Your task to perform on an android device: Open location settings Image 0: 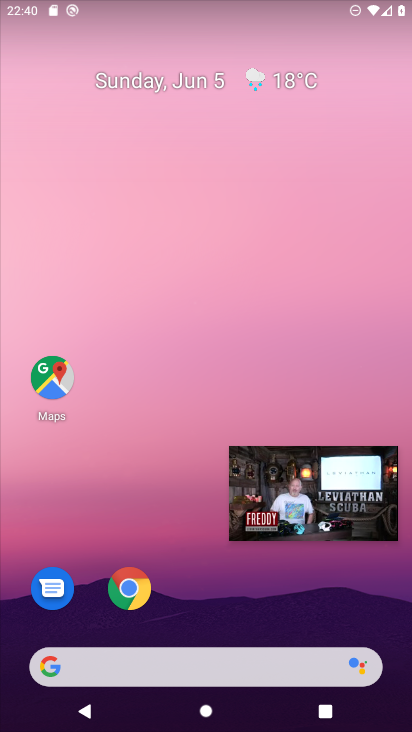
Step 0: drag from (217, 593) to (250, 199)
Your task to perform on an android device: Open location settings Image 1: 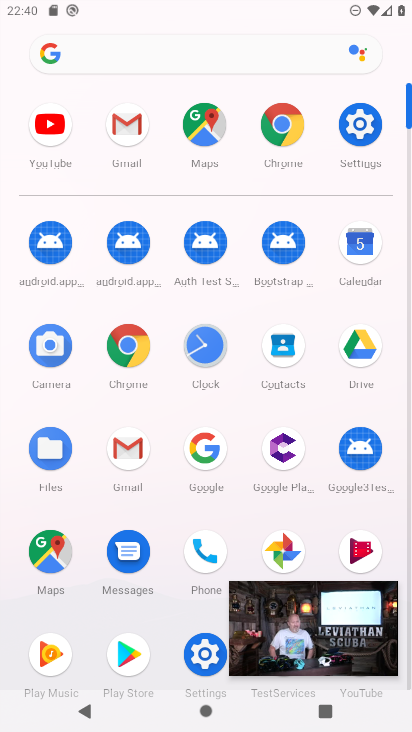
Step 1: click (363, 136)
Your task to perform on an android device: Open location settings Image 2: 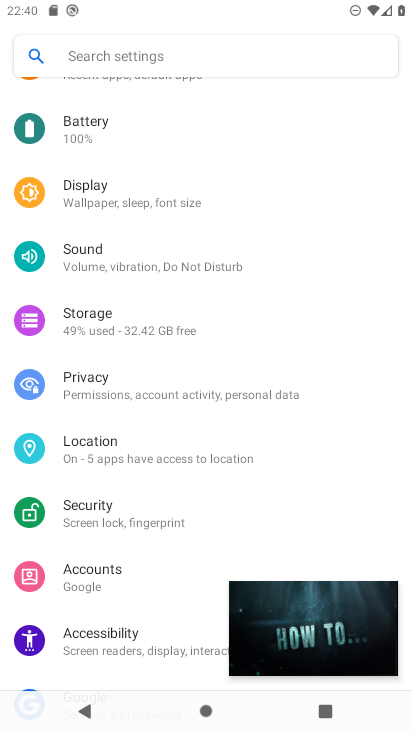
Step 2: drag from (338, 386) to (319, 228)
Your task to perform on an android device: Open location settings Image 3: 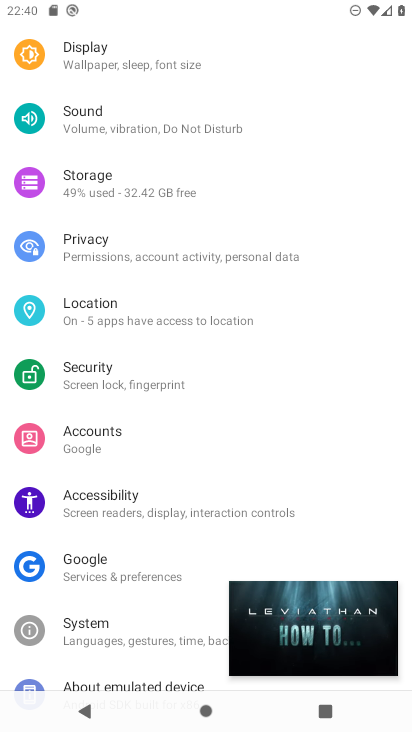
Step 3: drag from (329, 422) to (324, 259)
Your task to perform on an android device: Open location settings Image 4: 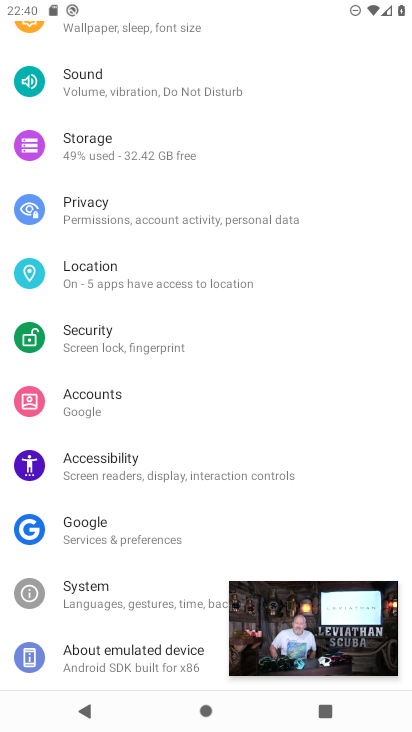
Step 4: drag from (342, 426) to (349, 254)
Your task to perform on an android device: Open location settings Image 5: 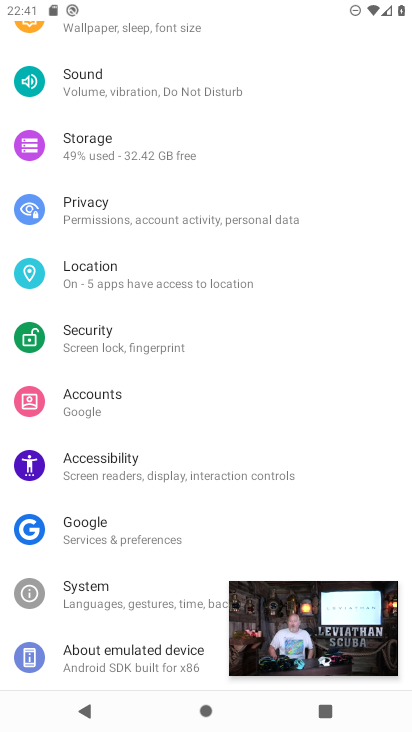
Step 5: click (197, 271)
Your task to perform on an android device: Open location settings Image 6: 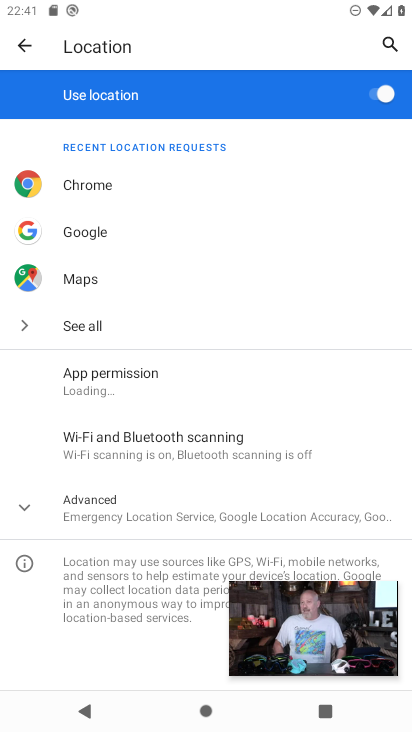
Step 6: task complete